Your task to perform on an android device: read, delete, or share a saved page in the chrome app Image 0: 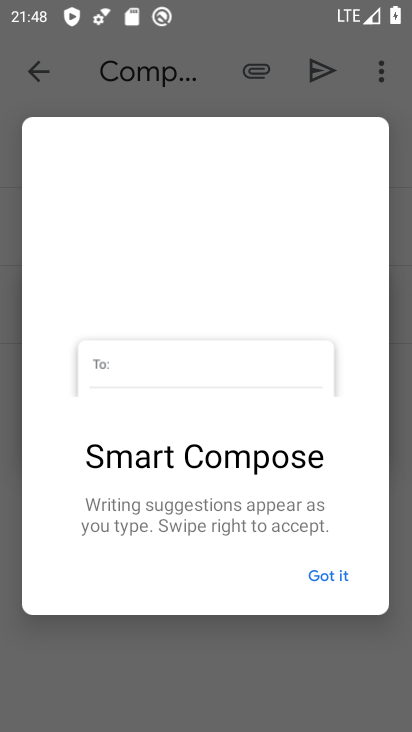
Step 0: press home button
Your task to perform on an android device: read, delete, or share a saved page in the chrome app Image 1: 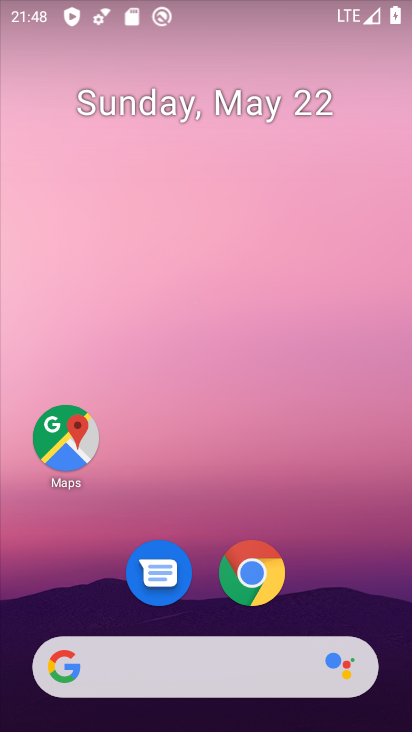
Step 1: click (241, 583)
Your task to perform on an android device: read, delete, or share a saved page in the chrome app Image 2: 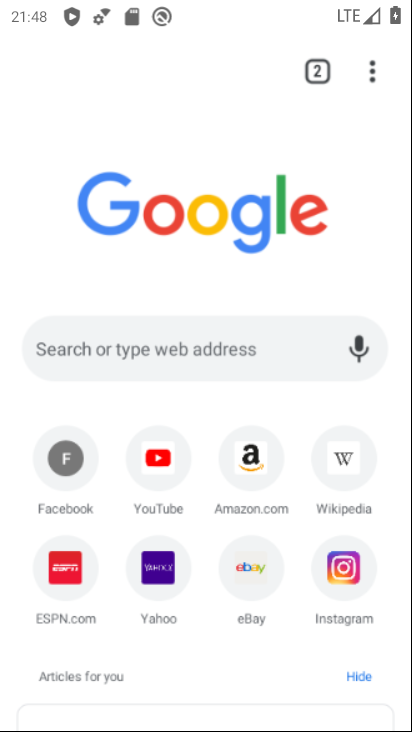
Step 2: drag from (381, 58) to (108, 466)
Your task to perform on an android device: read, delete, or share a saved page in the chrome app Image 3: 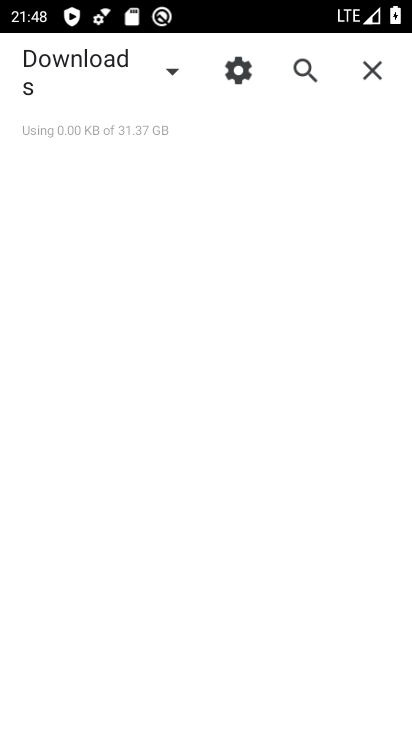
Step 3: click (168, 75)
Your task to perform on an android device: read, delete, or share a saved page in the chrome app Image 4: 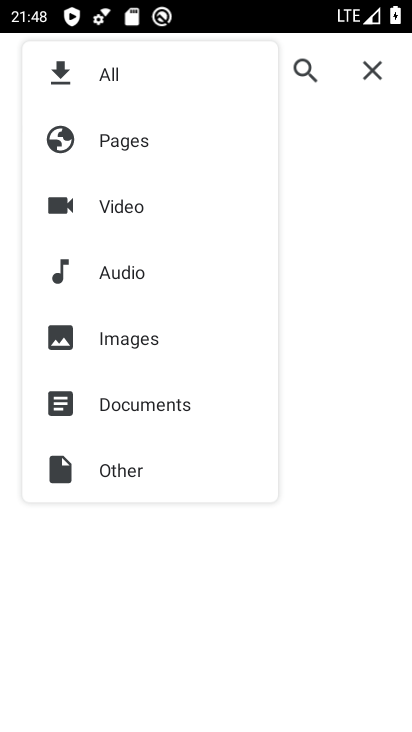
Step 4: click (125, 134)
Your task to perform on an android device: read, delete, or share a saved page in the chrome app Image 5: 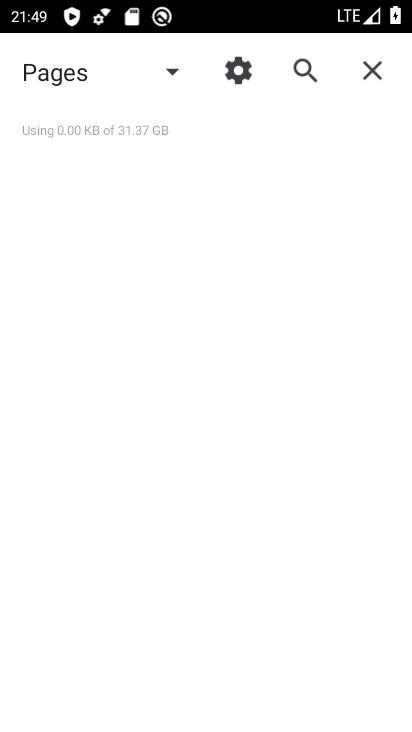
Step 5: task complete